Your task to perform on an android device: Show me recent news Image 0: 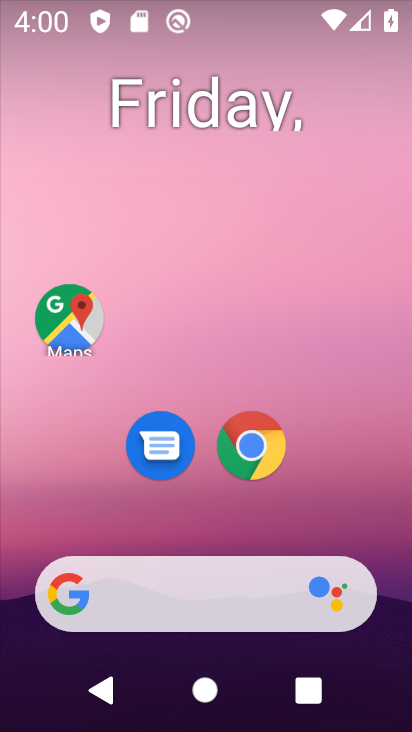
Step 0: press home button
Your task to perform on an android device: Show me recent news Image 1: 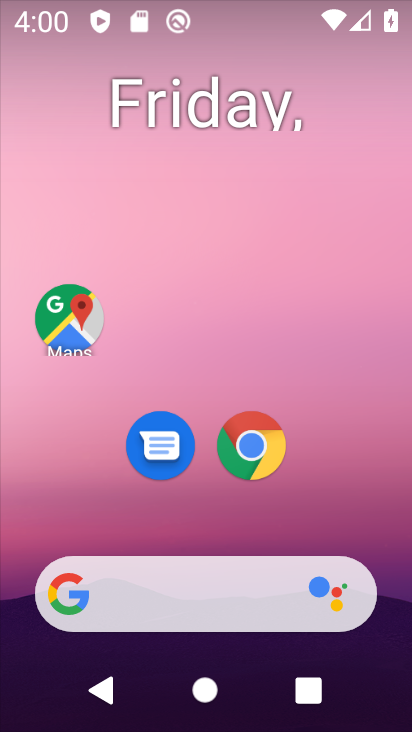
Step 1: click (53, 604)
Your task to perform on an android device: Show me recent news Image 2: 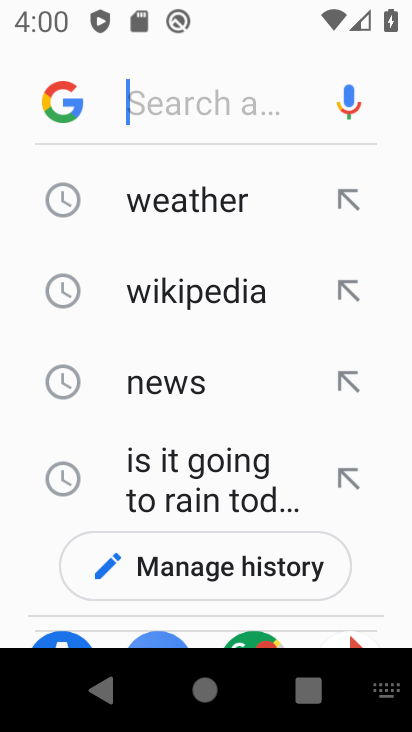
Step 2: type "recent news"
Your task to perform on an android device: Show me recent news Image 3: 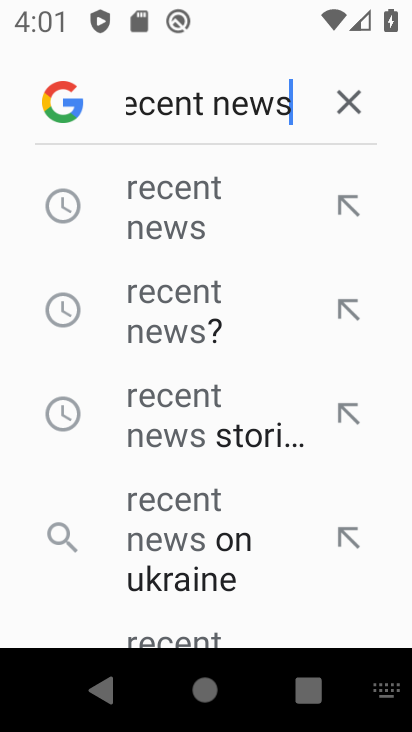
Step 3: click (162, 189)
Your task to perform on an android device: Show me recent news Image 4: 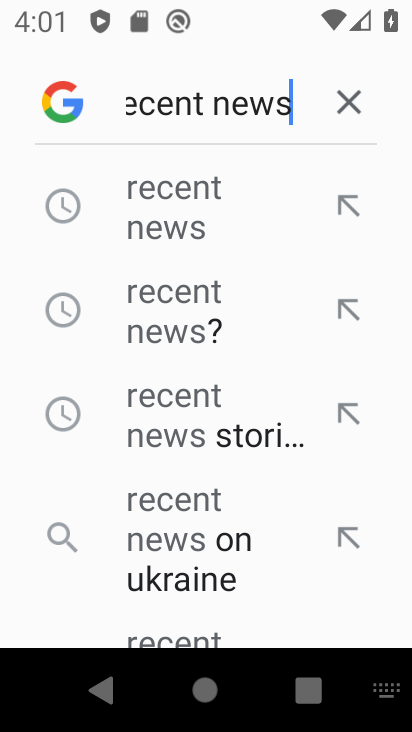
Step 4: click (162, 189)
Your task to perform on an android device: Show me recent news Image 5: 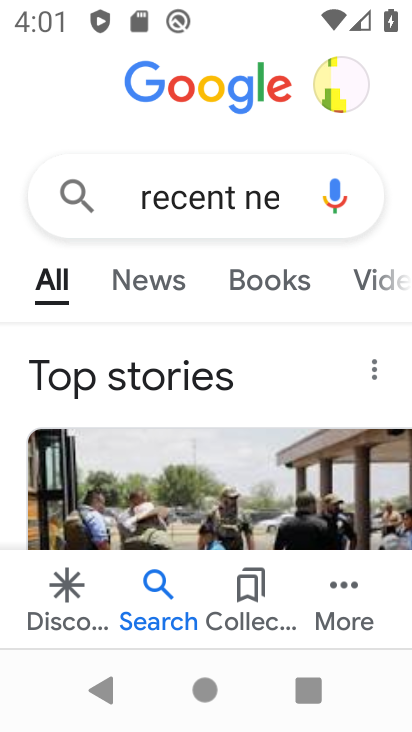
Step 5: task complete